Your task to perform on an android device: change text size in settings app Image 0: 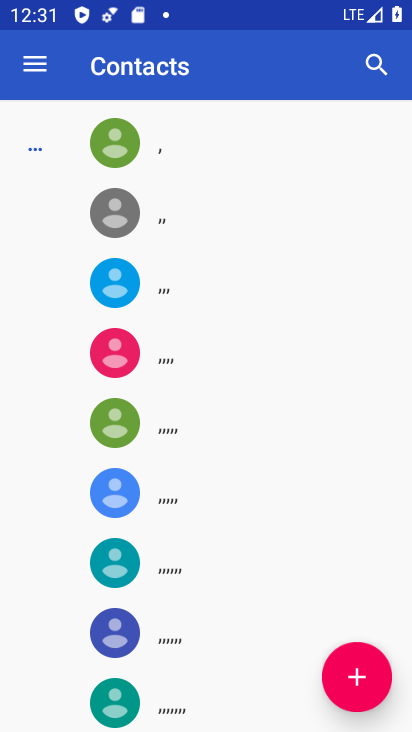
Step 0: press home button
Your task to perform on an android device: change text size in settings app Image 1: 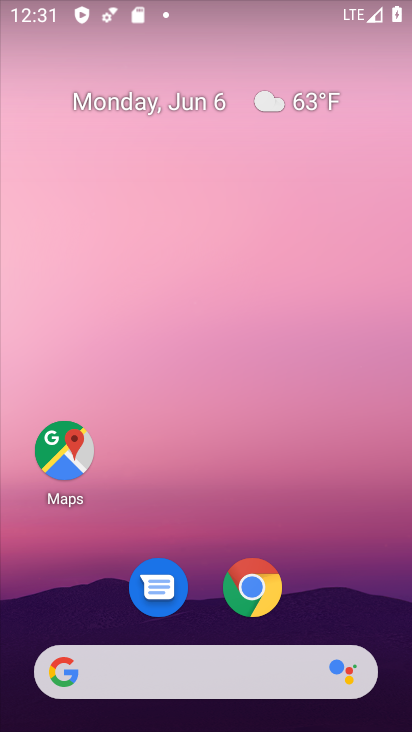
Step 1: drag from (373, 615) to (309, 200)
Your task to perform on an android device: change text size in settings app Image 2: 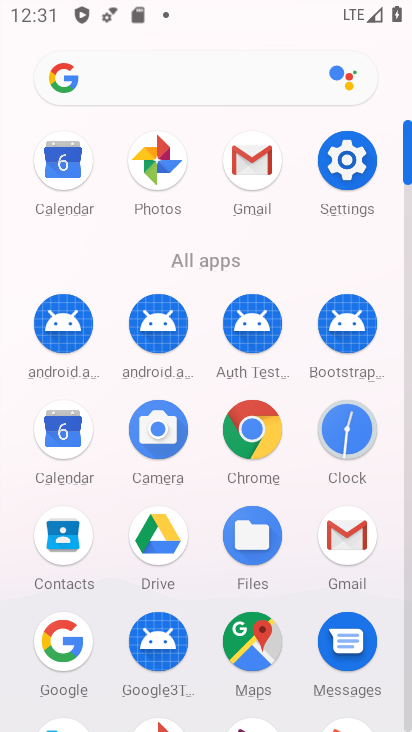
Step 2: click (355, 178)
Your task to perform on an android device: change text size in settings app Image 3: 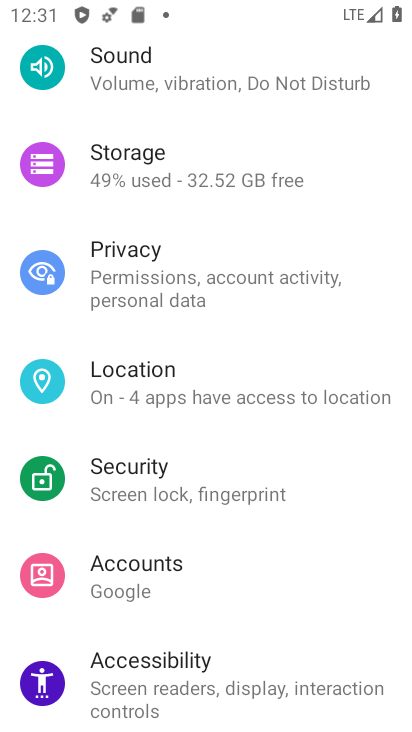
Step 3: drag from (290, 223) to (299, 607)
Your task to perform on an android device: change text size in settings app Image 4: 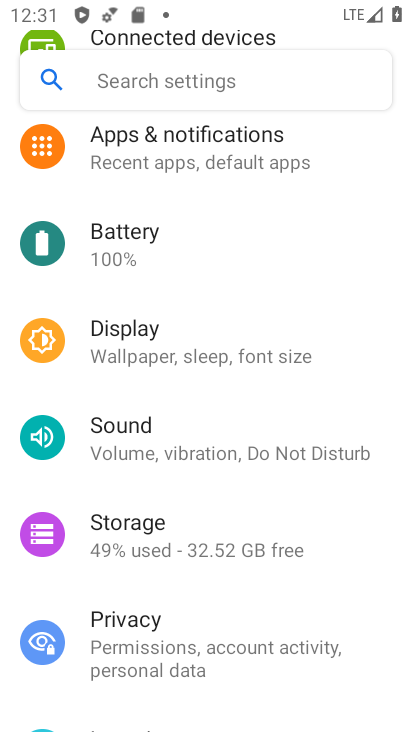
Step 4: click (246, 371)
Your task to perform on an android device: change text size in settings app Image 5: 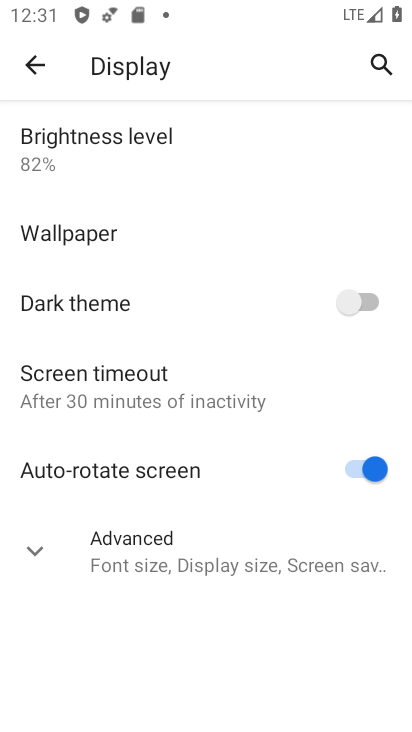
Step 5: click (261, 566)
Your task to perform on an android device: change text size in settings app Image 6: 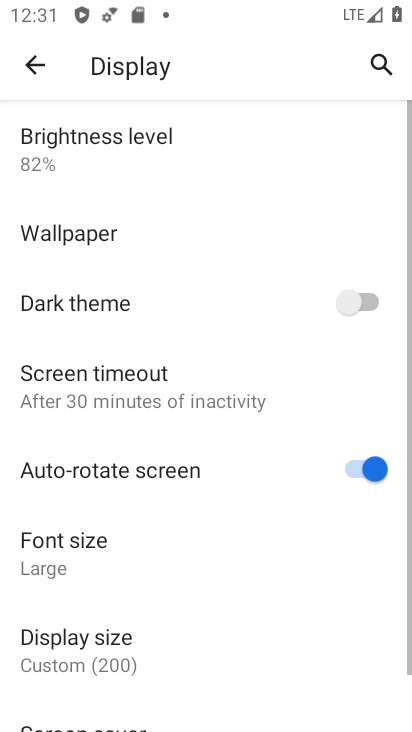
Step 6: drag from (261, 566) to (232, 348)
Your task to perform on an android device: change text size in settings app Image 7: 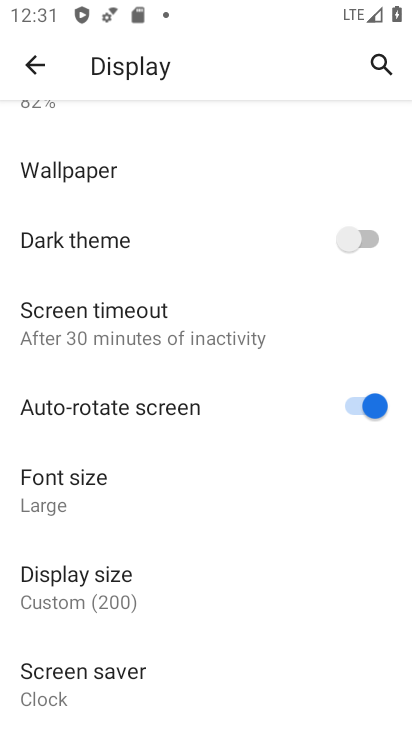
Step 7: click (227, 477)
Your task to perform on an android device: change text size in settings app Image 8: 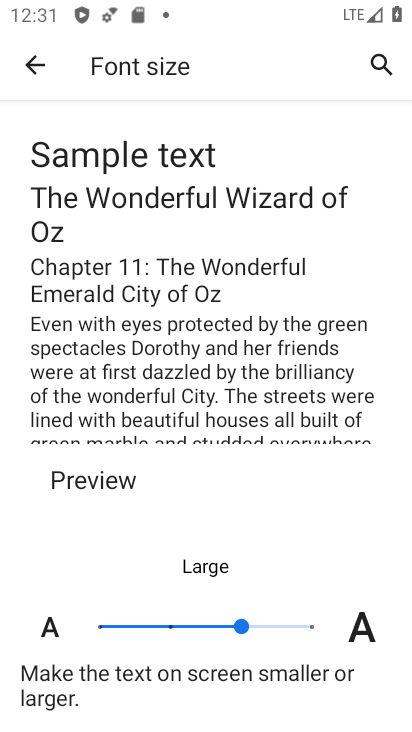
Step 8: click (170, 632)
Your task to perform on an android device: change text size in settings app Image 9: 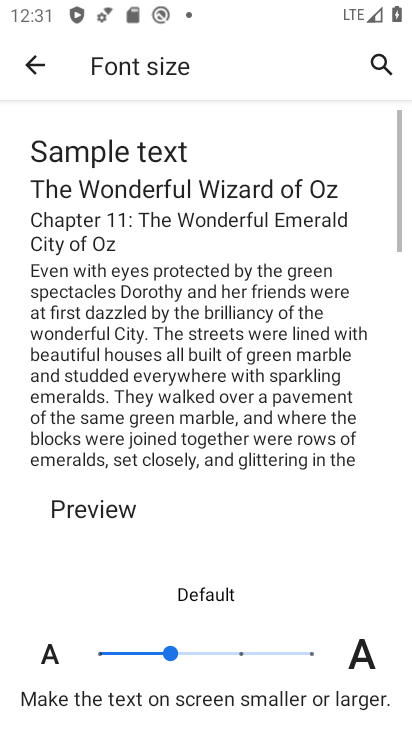
Step 9: task complete